Your task to perform on an android device: toggle improve location accuracy Image 0: 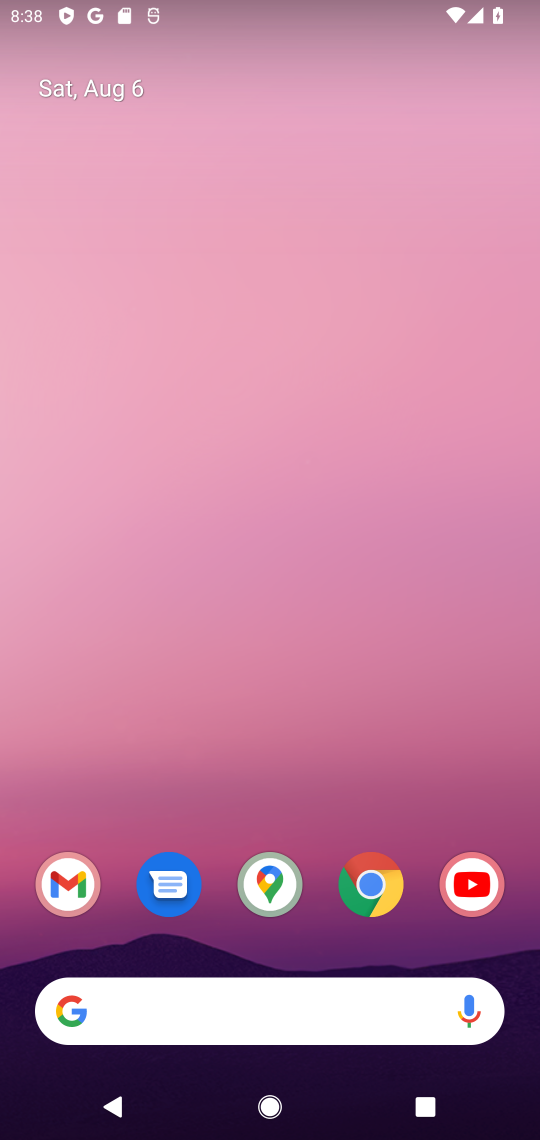
Step 0: drag from (418, 947) to (393, 130)
Your task to perform on an android device: toggle improve location accuracy Image 1: 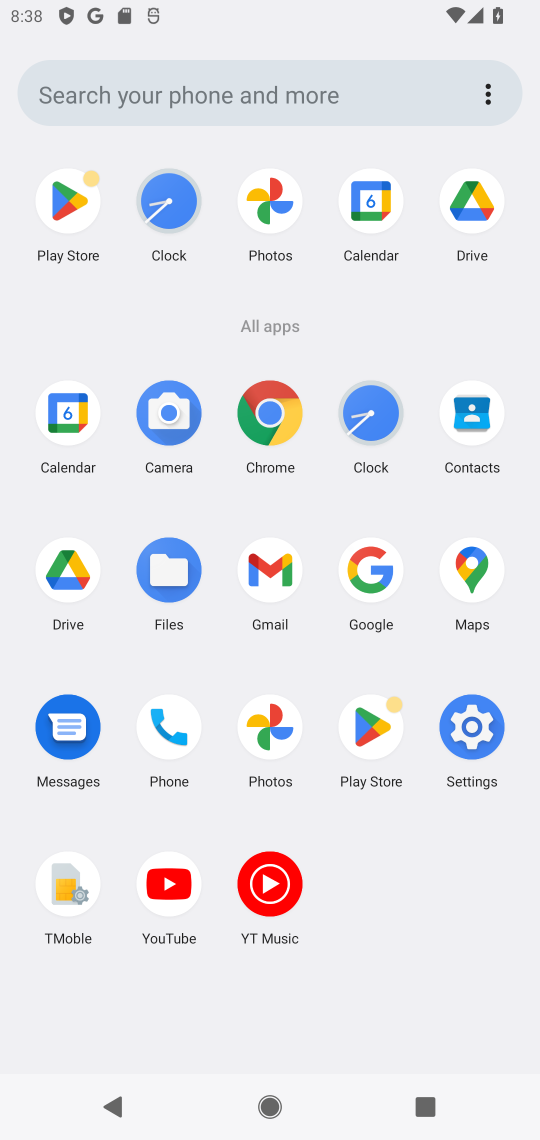
Step 1: click (468, 730)
Your task to perform on an android device: toggle improve location accuracy Image 2: 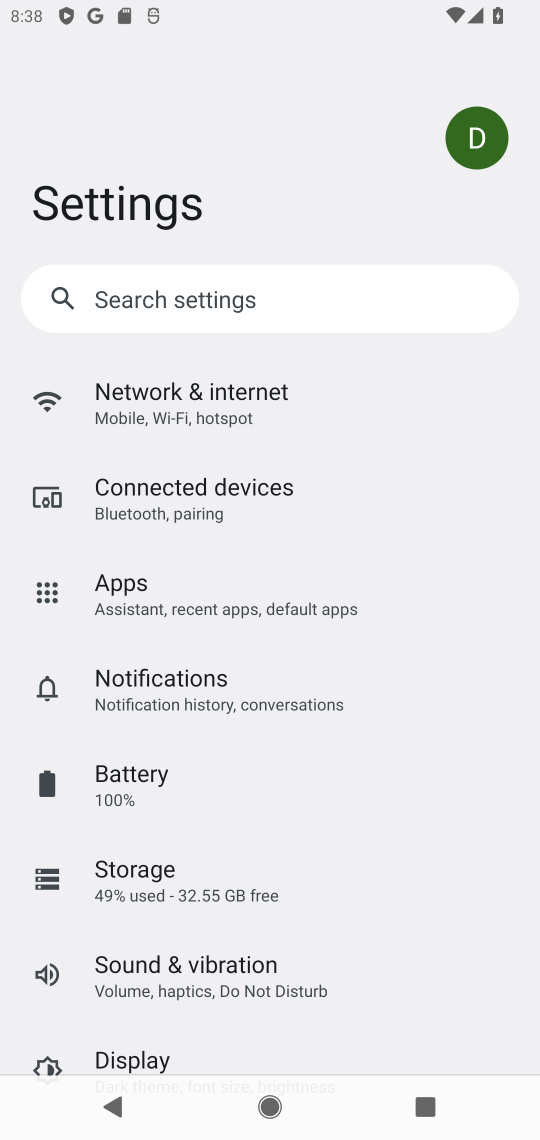
Step 2: drag from (403, 1022) to (420, 603)
Your task to perform on an android device: toggle improve location accuracy Image 3: 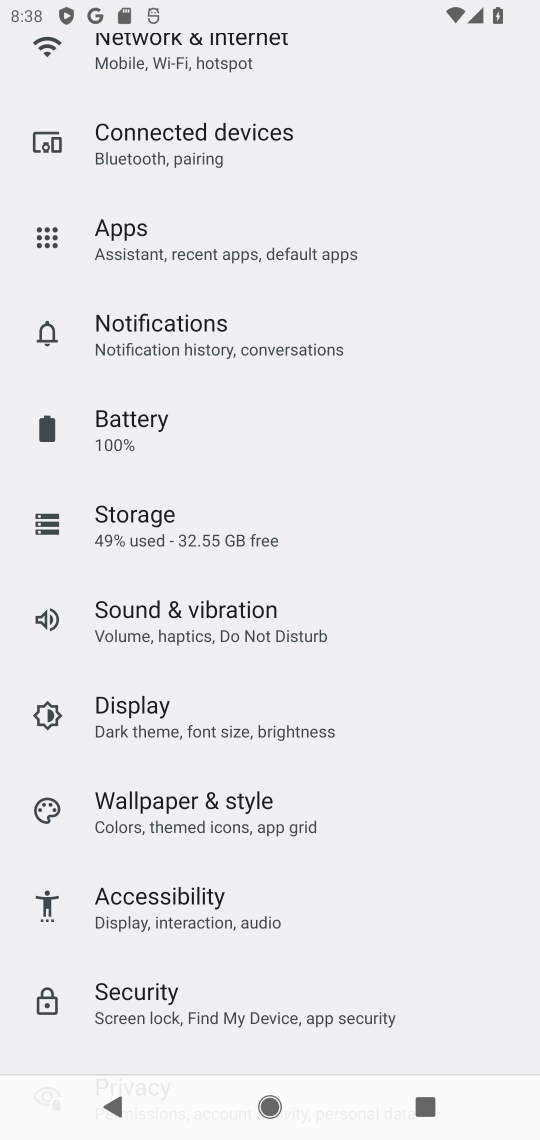
Step 3: drag from (378, 945) to (345, 495)
Your task to perform on an android device: toggle improve location accuracy Image 4: 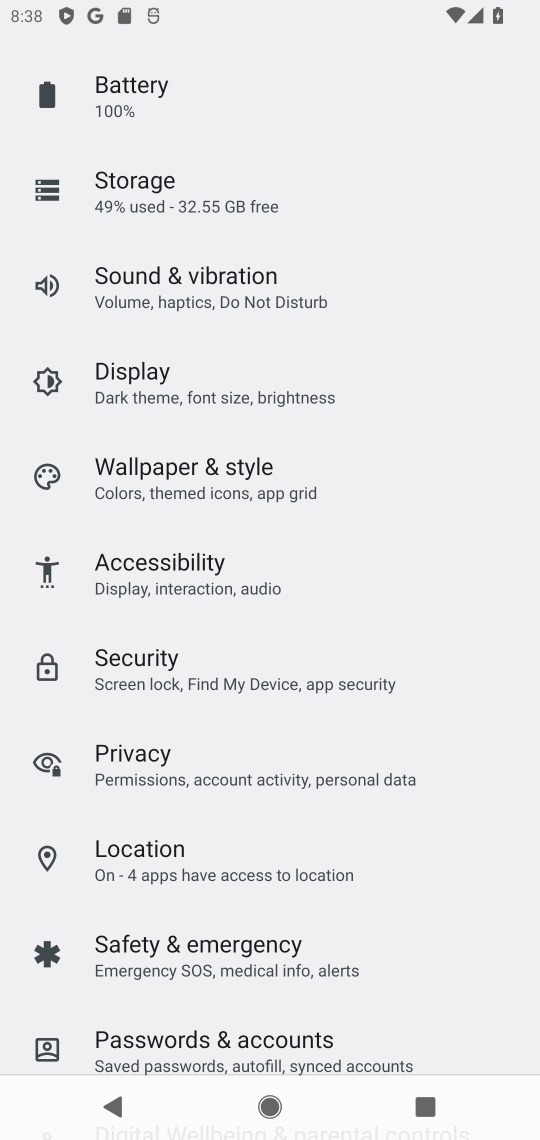
Step 4: click (142, 856)
Your task to perform on an android device: toggle improve location accuracy Image 5: 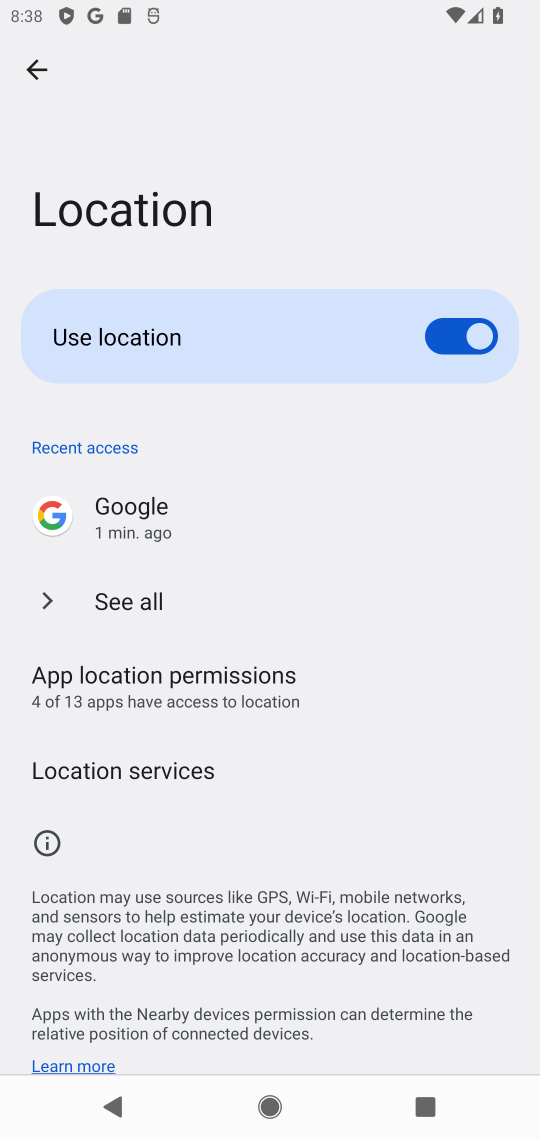
Step 5: click (116, 766)
Your task to perform on an android device: toggle improve location accuracy Image 6: 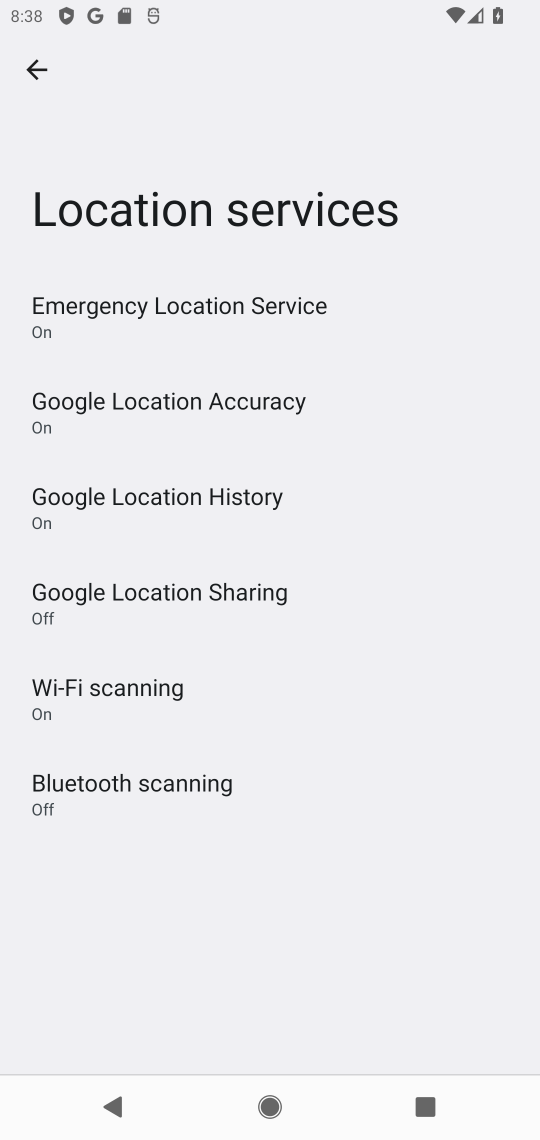
Step 6: click (152, 403)
Your task to perform on an android device: toggle improve location accuracy Image 7: 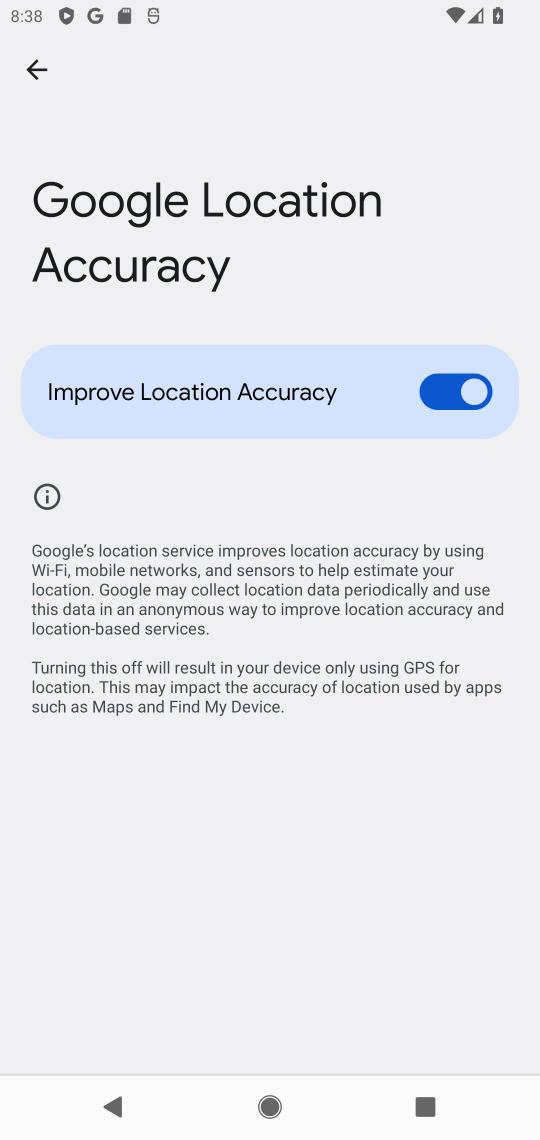
Step 7: click (429, 398)
Your task to perform on an android device: toggle improve location accuracy Image 8: 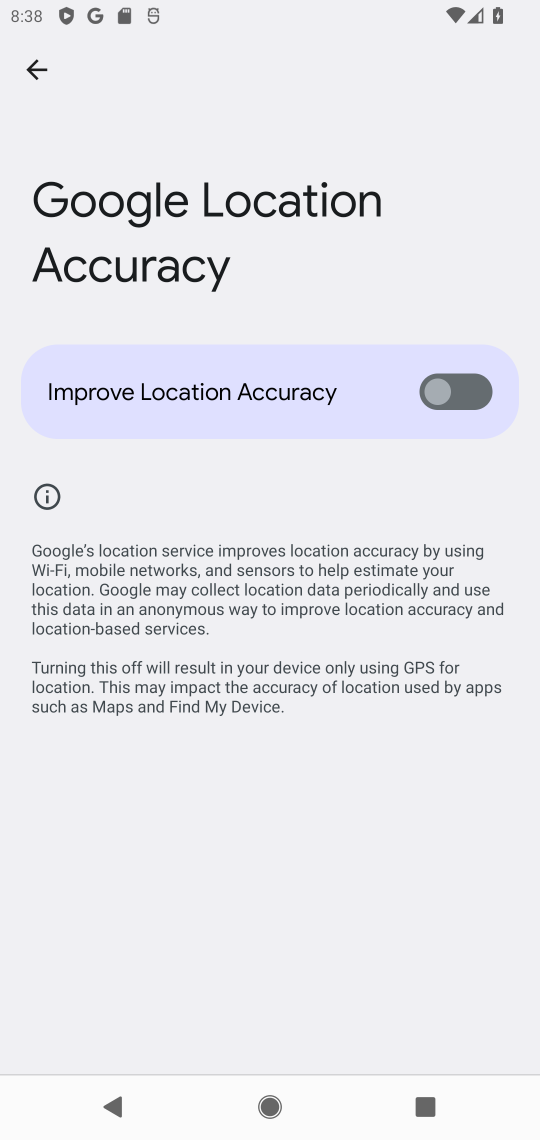
Step 8: task complete